Your task to perform on an android device: set the timer Image 0: 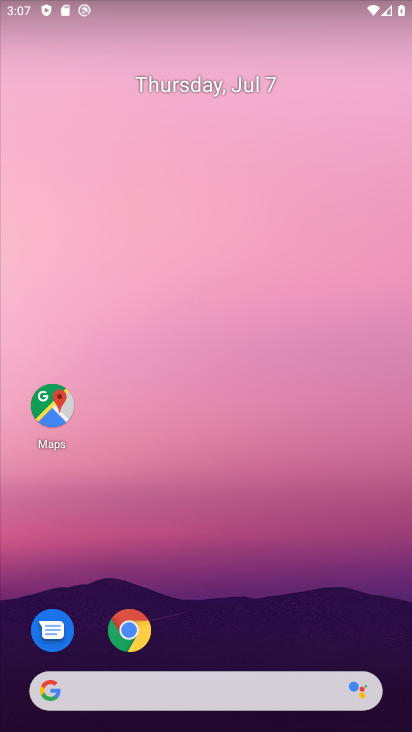
Step 0: drag from (348, 623) to (340, 210)
Your task to perform on an android device: set the timer Image 1: 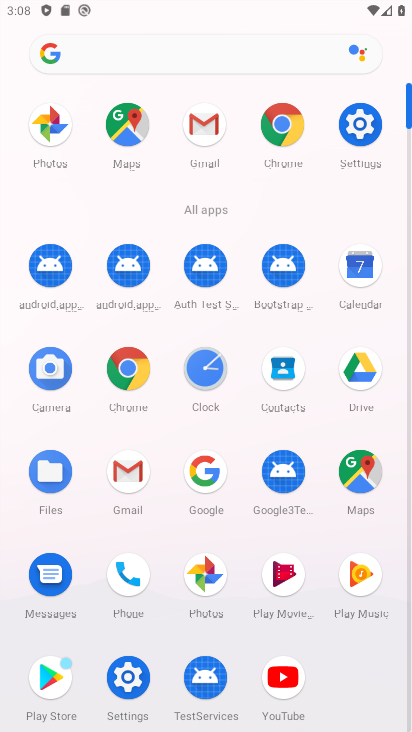
Step 1: click (210, 375)
Your task to perform on an android device: set the timer Image 2: 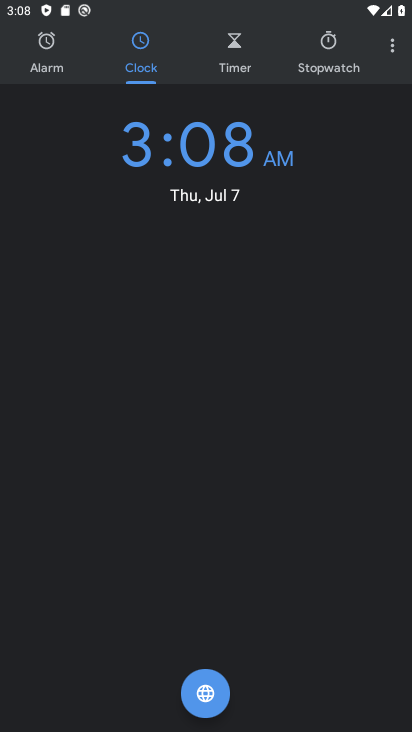
Step 2: click (234, 45)
Your task to perform on an android device: set the timer Image 3: 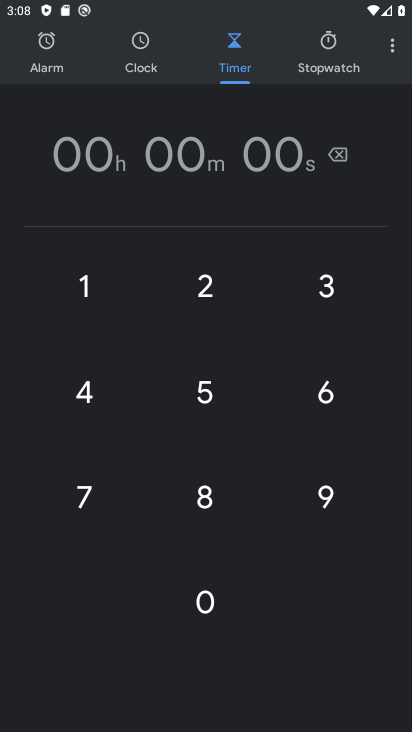
Step 3: click (219, 411)
Your task to perform on an android device: set the timer Image 4: 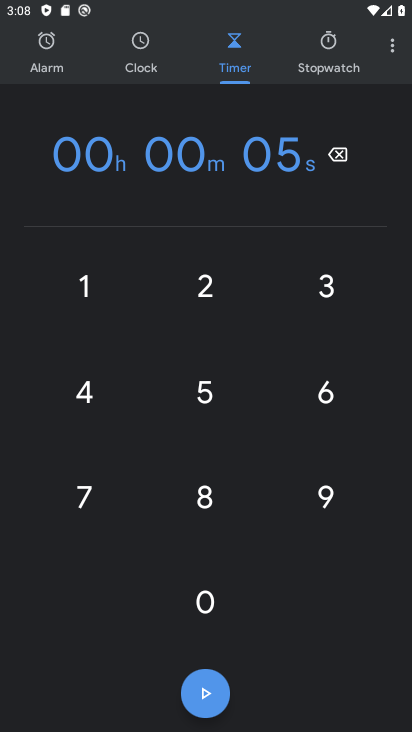
Step 4: task complete